Your task to perform on an android device: see sites visited before in the chrome app Image 0: 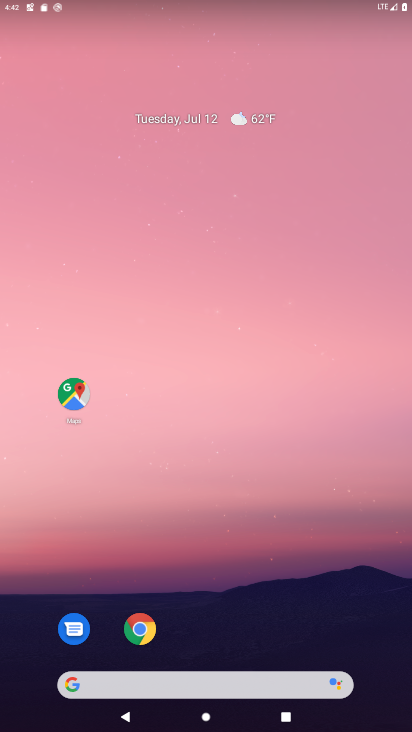
Step 0: drag from (280, 564) to (230, 80)
Your task to perform on an android device: see sites visited before in the chrome app Image 1: 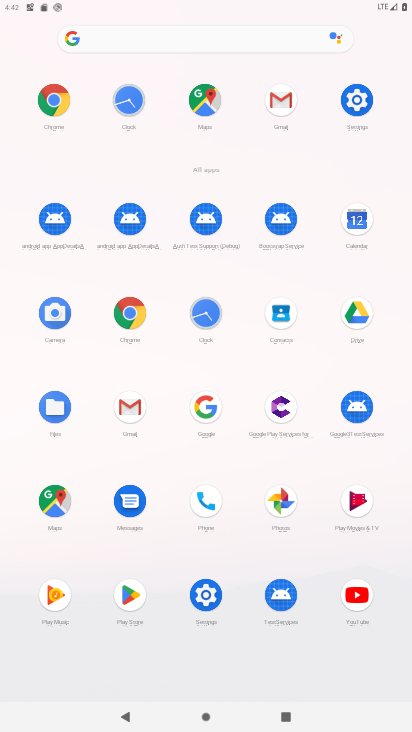
Step 1: click (43, 109)
Your task to perform on an android device: see sites visited before in the chrome app Image 2: 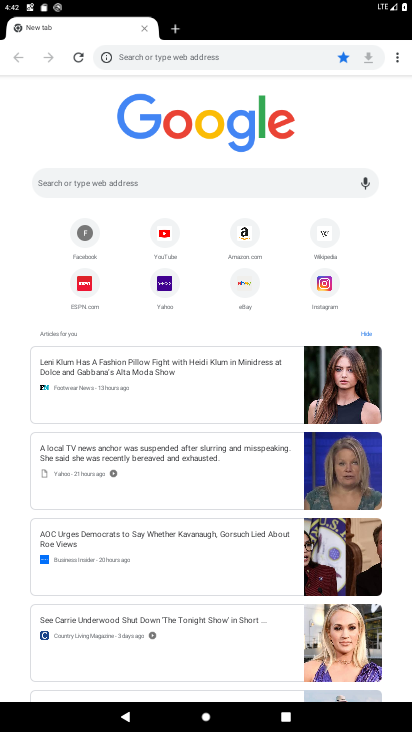
Step 2: task complete